Your task to perform on an android device: Open maps Image 0: 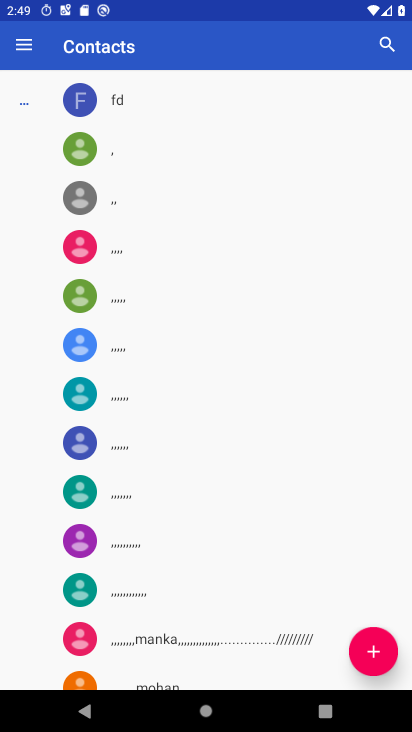
Step 0: press home button
Your task to perform on an android device: Open maps Image 1: 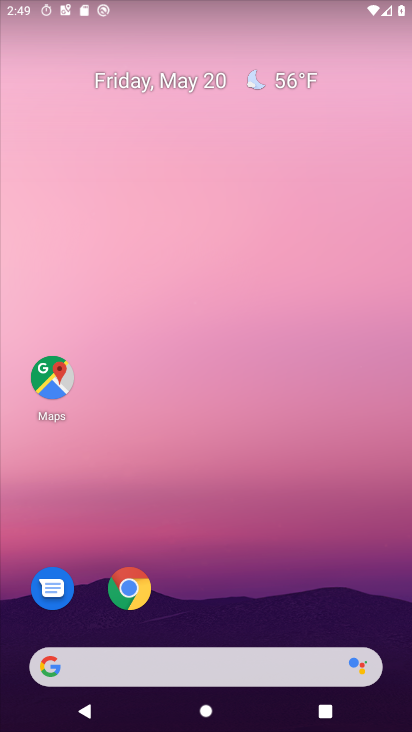
Step 1: click (66, 372)
Your task to perform on an android device: Open maps Image 2: 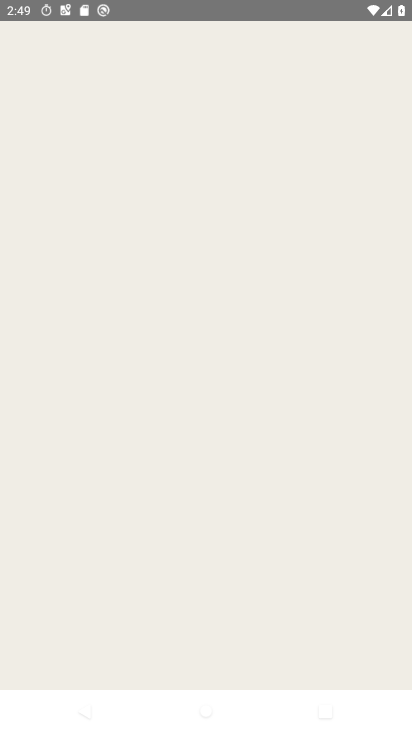
Step 2: task complete